Your task to perform on an android device: add a contact in the contacts app Image 0: 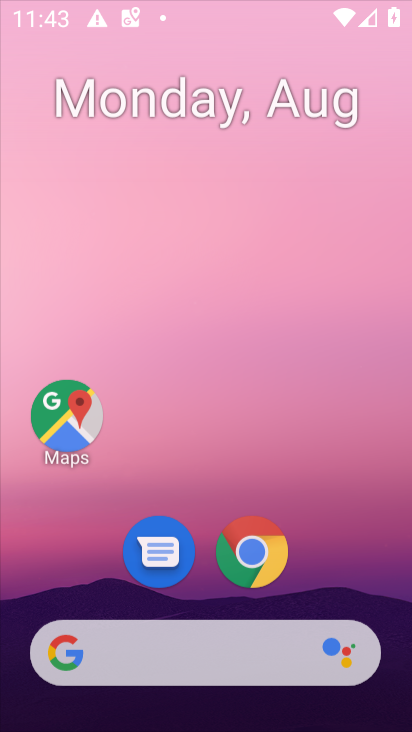
Step 0: click (380, 366)
Your task to perform on an android device: add a contact in the contacts app Image 1: 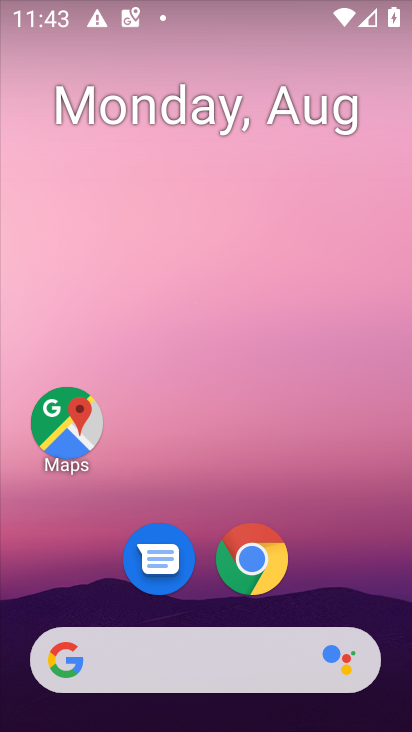
Step 1: drag from (207, 592) to (232, 94)
Your task to perform on an android device: add a contact in the contacts app Image 2: 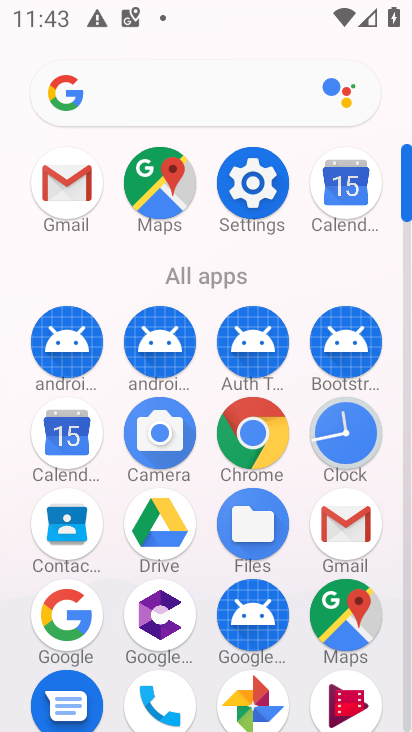
Step 2: click (78, 526)
Your task to perform on an android device: add a contact in the contacts app Image 3: 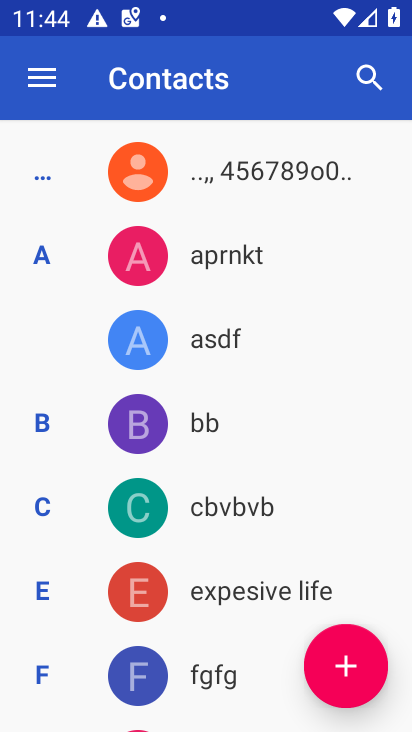
Step 3: click (355, 650)
Your task to perform on an android device: add a contact in the contacts app Image 4: 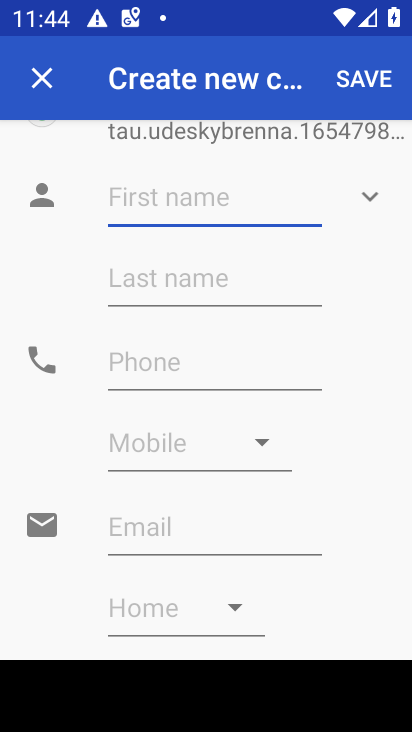
Step 4: type "feminist"
Your task to perform on an android device: add a contact in the contacts app Image 5: 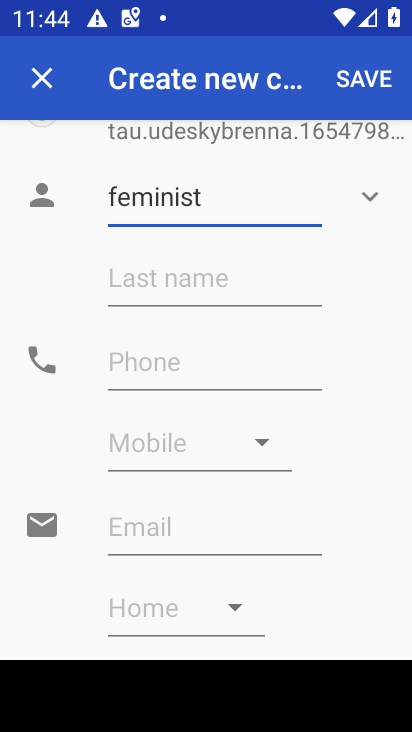
Step 5: click (366, 76)
Your task to perform on an android device: add a contact in the contacts app Image 6: 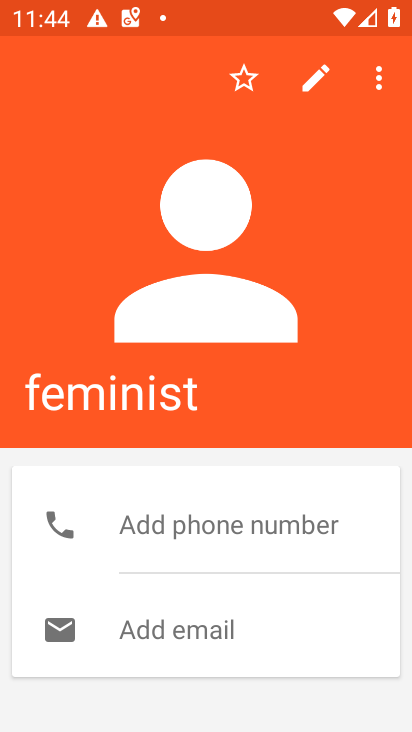
Step 6: task complete